Your task to perform on an android device: check storage Image 0: 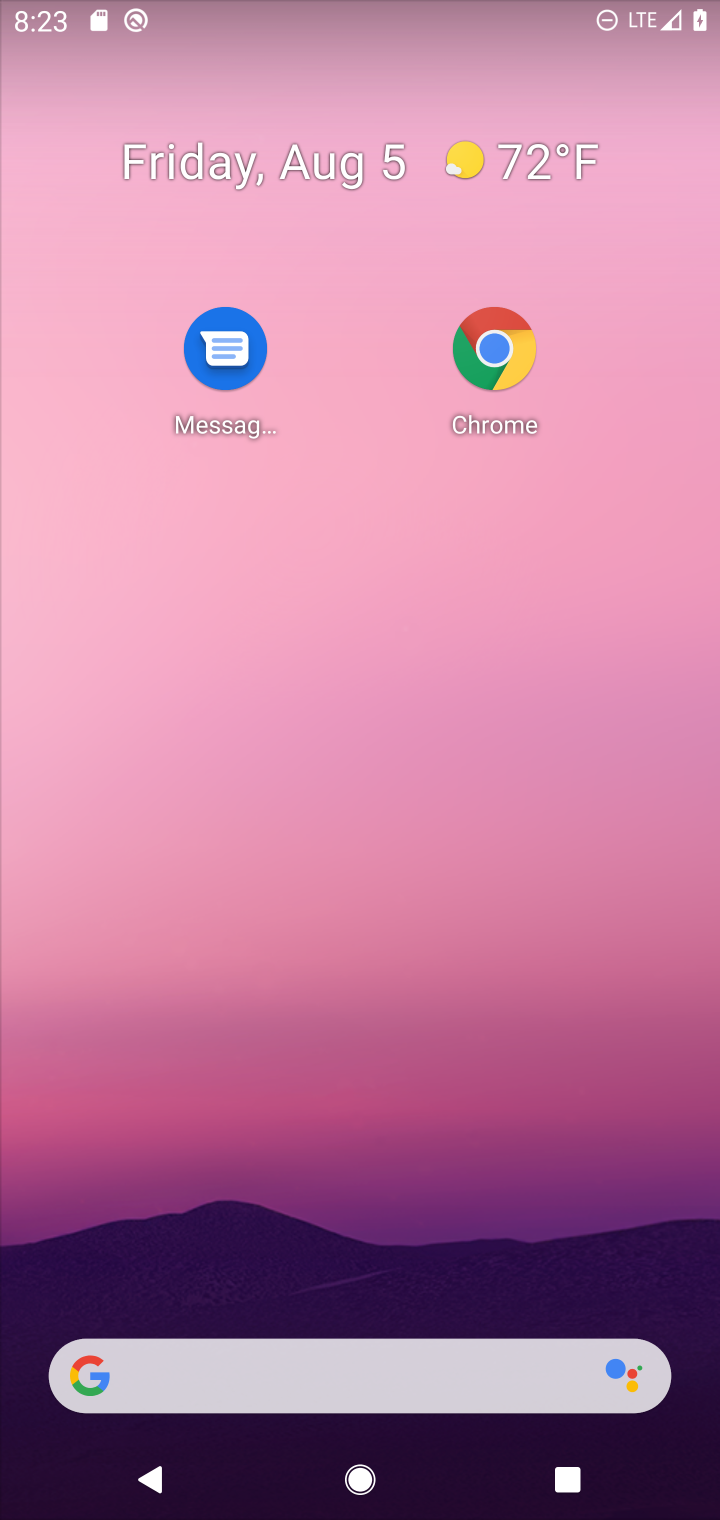
Step 0: drag from (393, 978) to (364, 168)
Your task to perform on an android device: check storage Image 1: 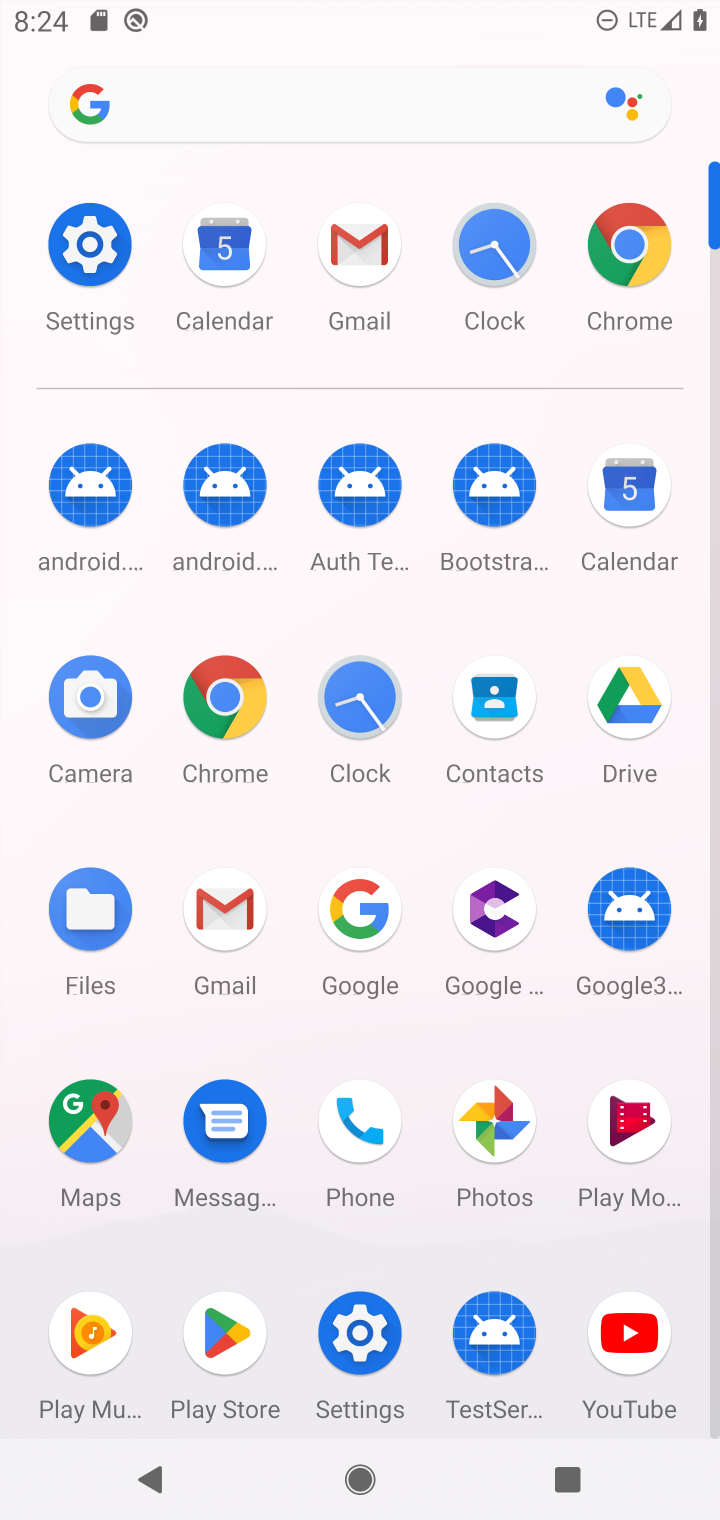
Step 1: click (75, 290)
Your task to perform on an android device: check storage Image 2: 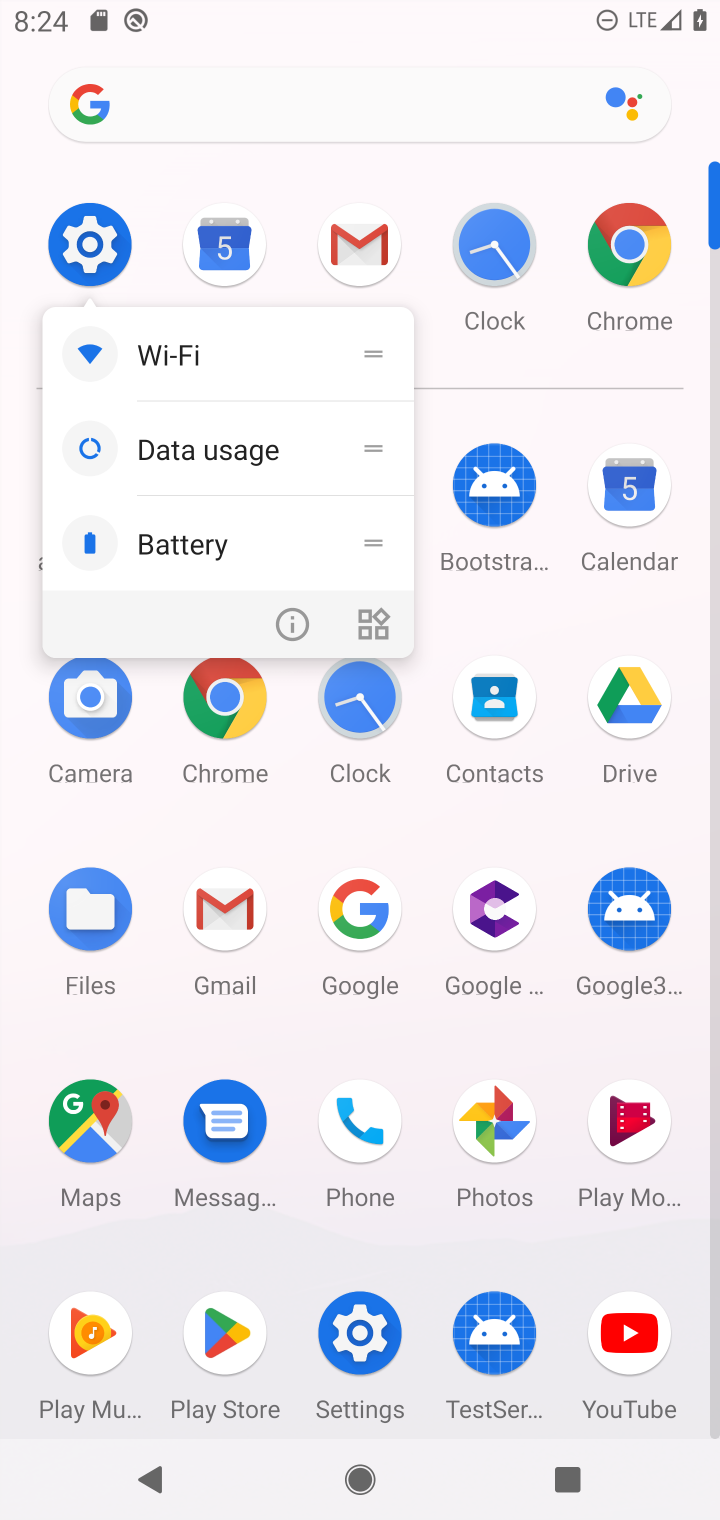
Step 2: click (79, 266)
Your task to perform on an android device: check storage Image 3: 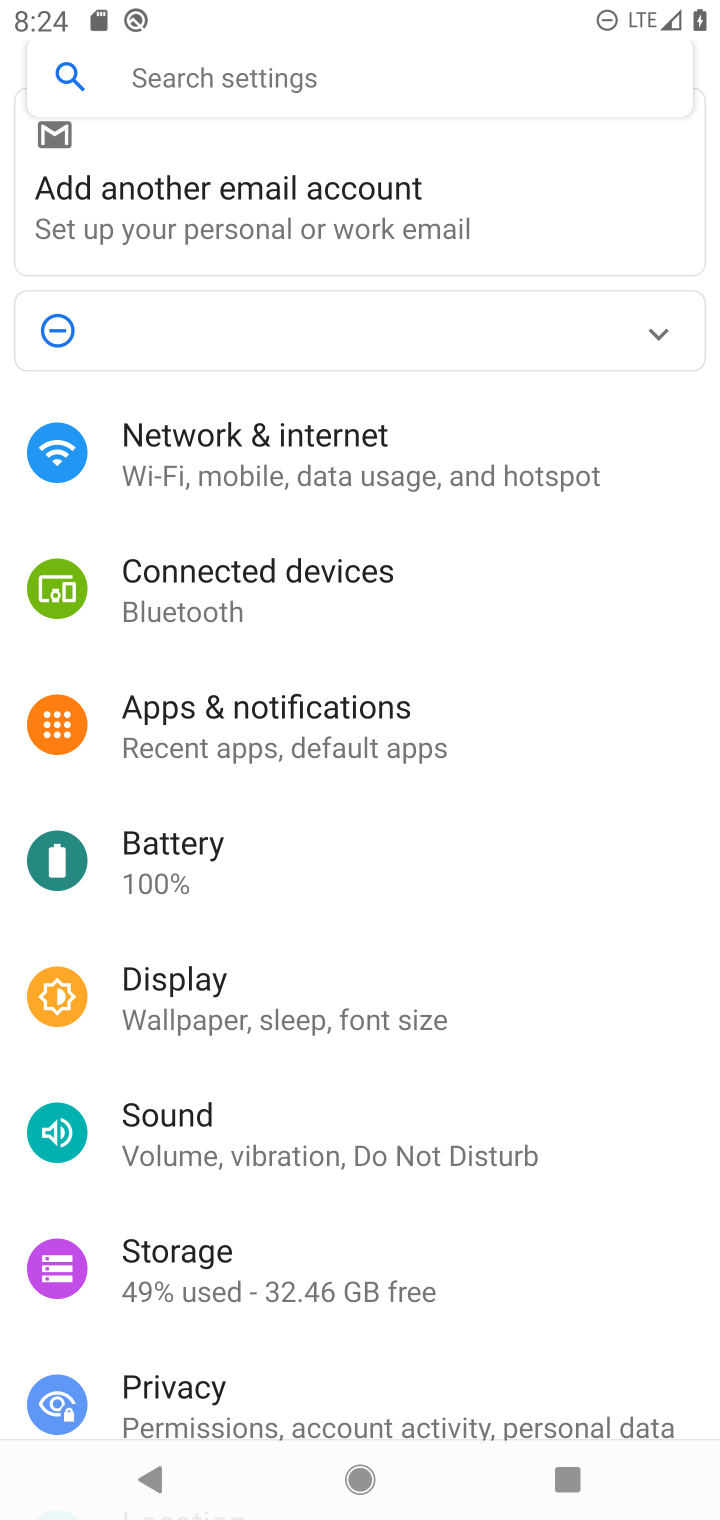
Step 3: click (280, 1298)
Your task to perform on an android device: check storage Image 4: 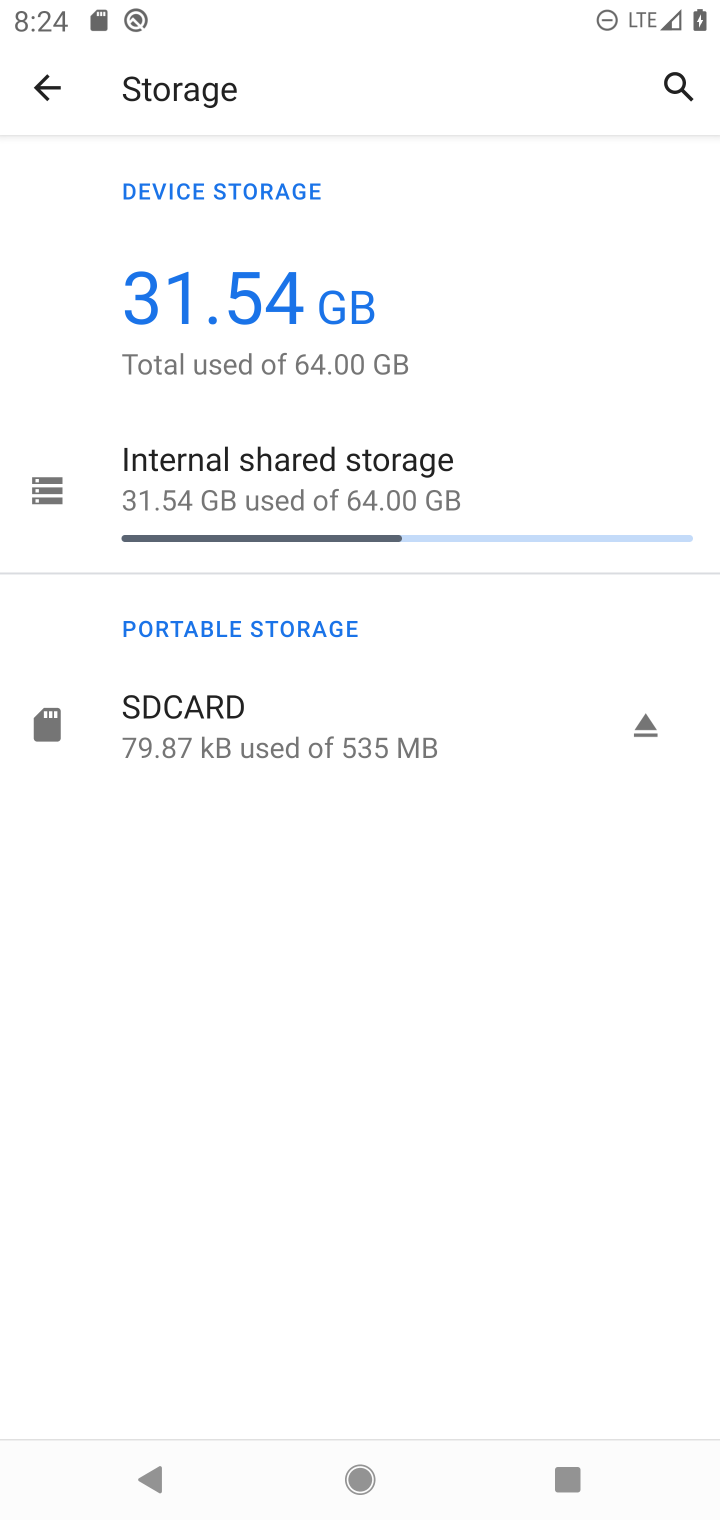
Step 4: task complete